Your task to perform on an android device: install app "ColorNote Notepad Notes" Image 0: 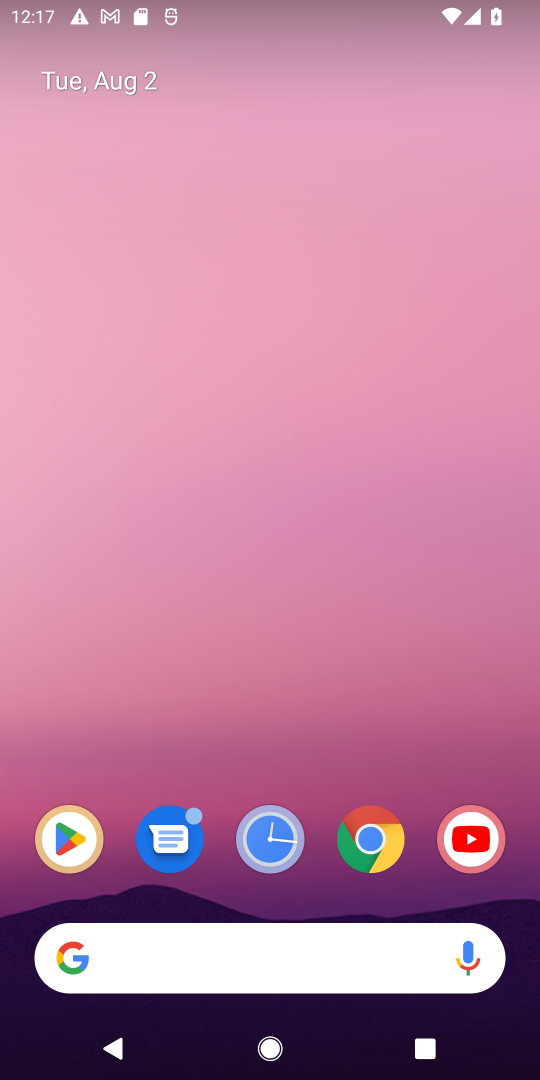
Step 0: drag from (312, 744) to (245, 354)
Your task to perform on an android device: install app "ColorNote Notepad Notes" Image 1: 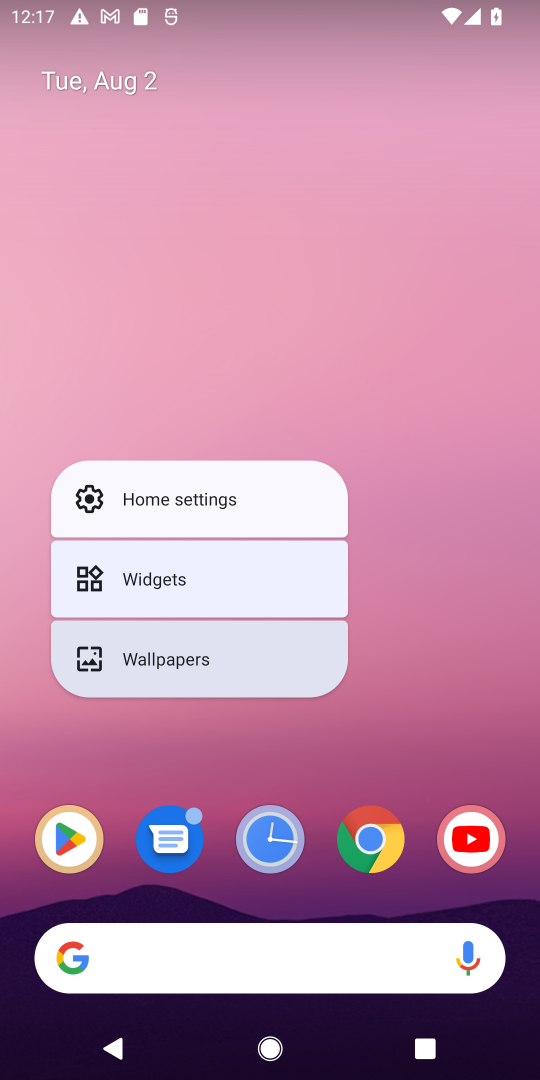
Step 1: click (489, 715)
Your task to perform on an android device: install app "ColorNote Notepad Notes" Image 2: 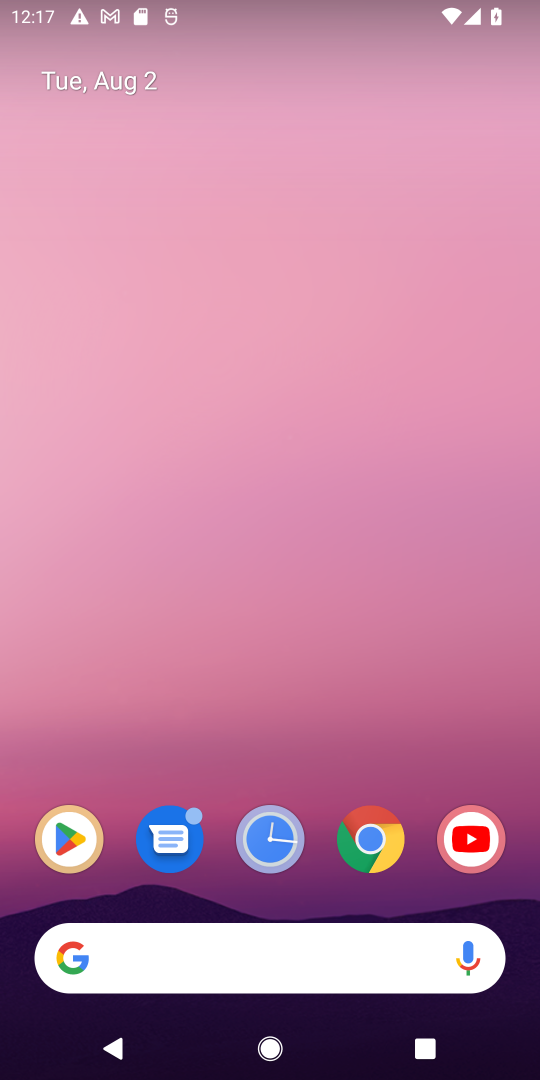
Step 2: drag from (437, 736) to (240, 110)
Your task to perform on an android device: install app "ColorNote Notepad Notes" Image 3: 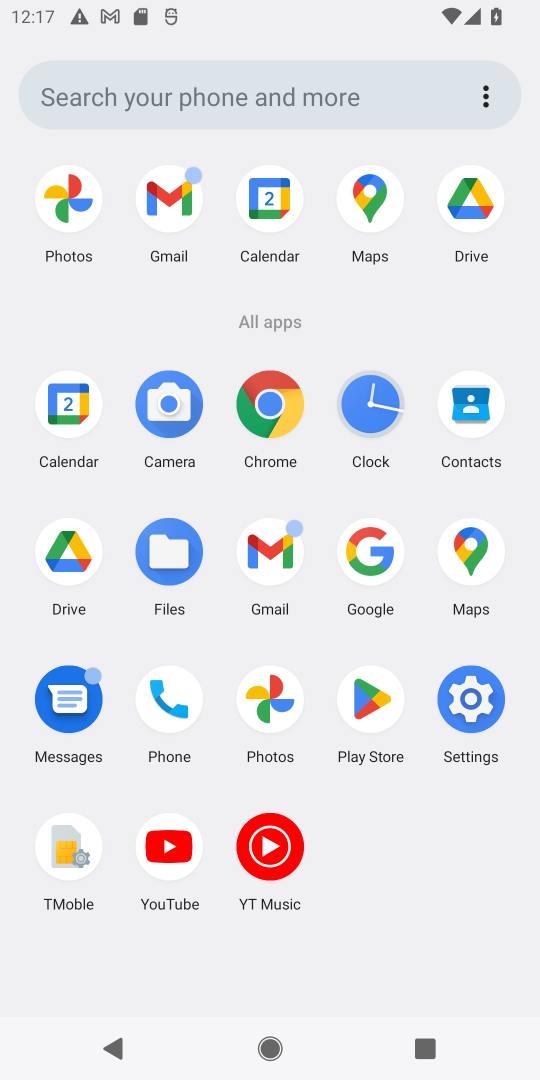
Step 3: click (350, 697)
Your task to perform on an android device: install app "ColorNote Notepad Notes" Image 4: 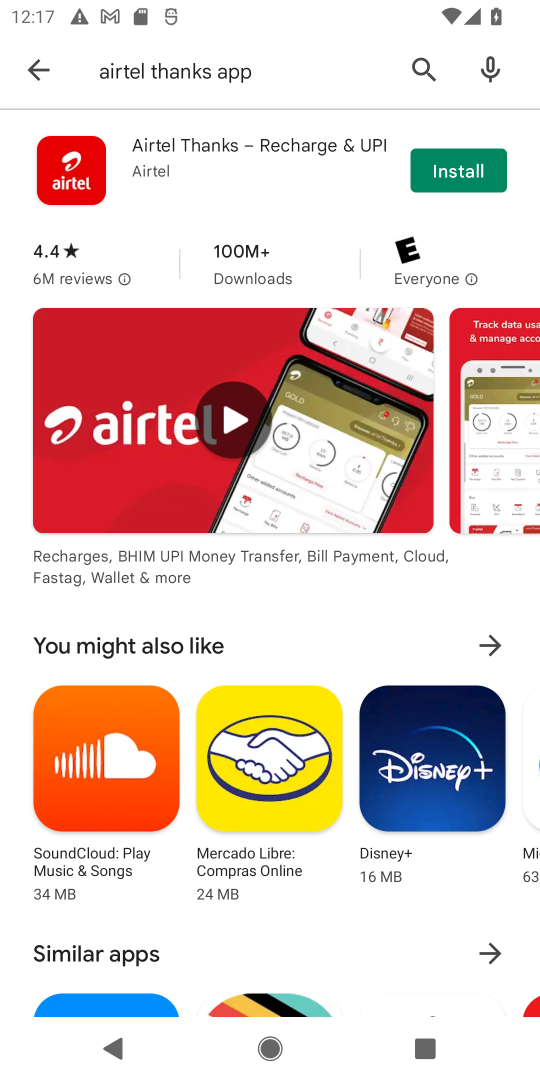
Step 4: click (422, 67)
Your task to perform on an android device: install app "ColorNote Notepad Notes" Image 5: 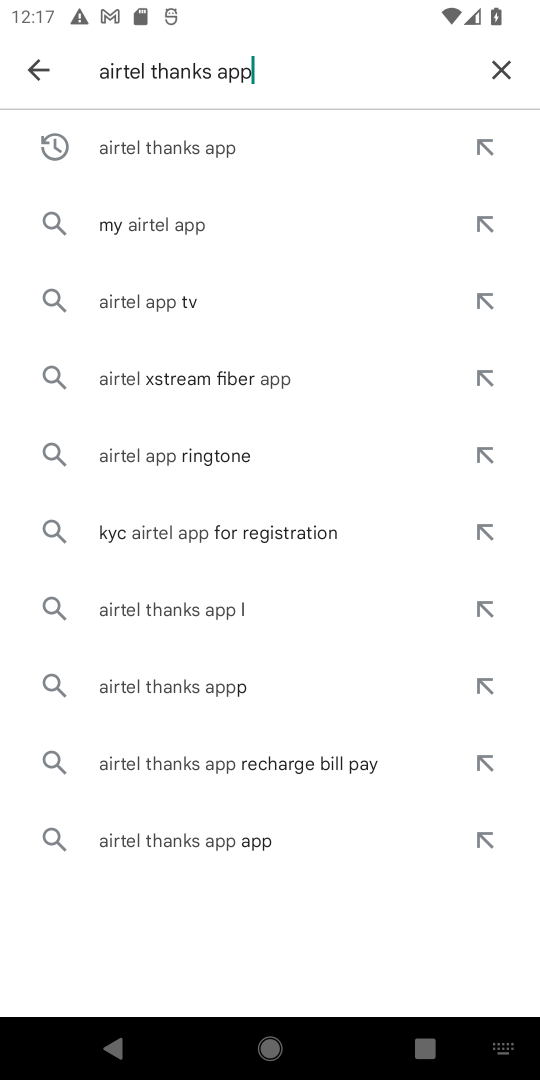
Step 5: click (501, 71)
Your task to perform on an android device: install app "ColorNote Notepad Notes" Image 6: 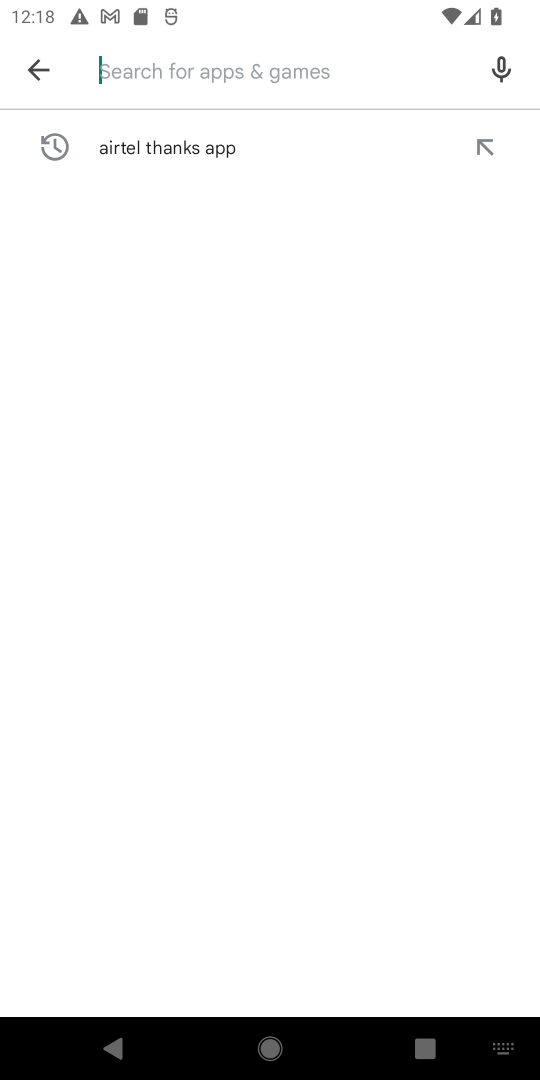
Step 6: type "colornote notepad notes"
Your task to perform on an android device: install app "ColorNote Notepad Notes" Image 7: 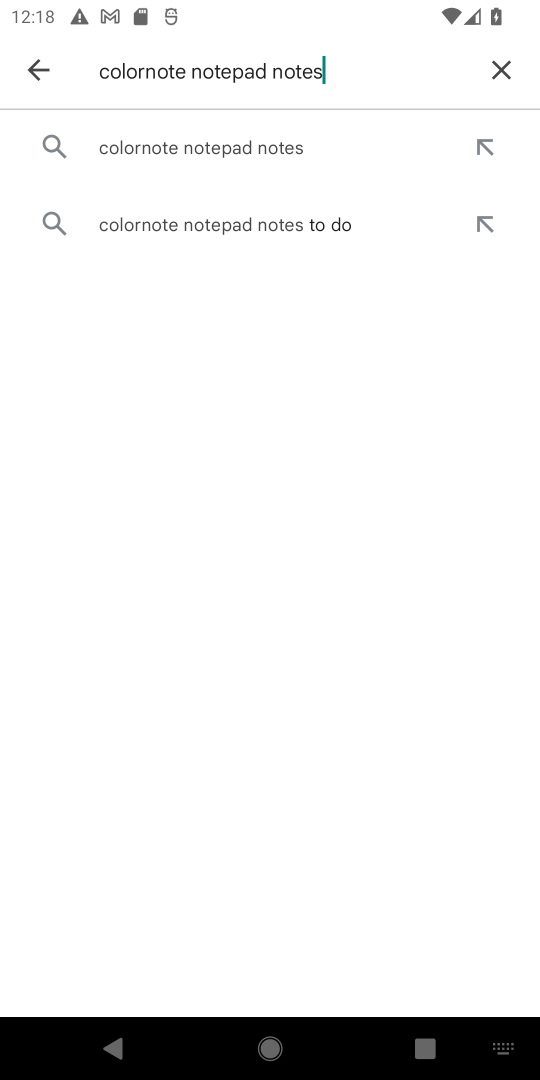
Step 7: click (258, 132)
Your task to perform on an android device: install app "ColorNote Notepad Notes" Image 8: 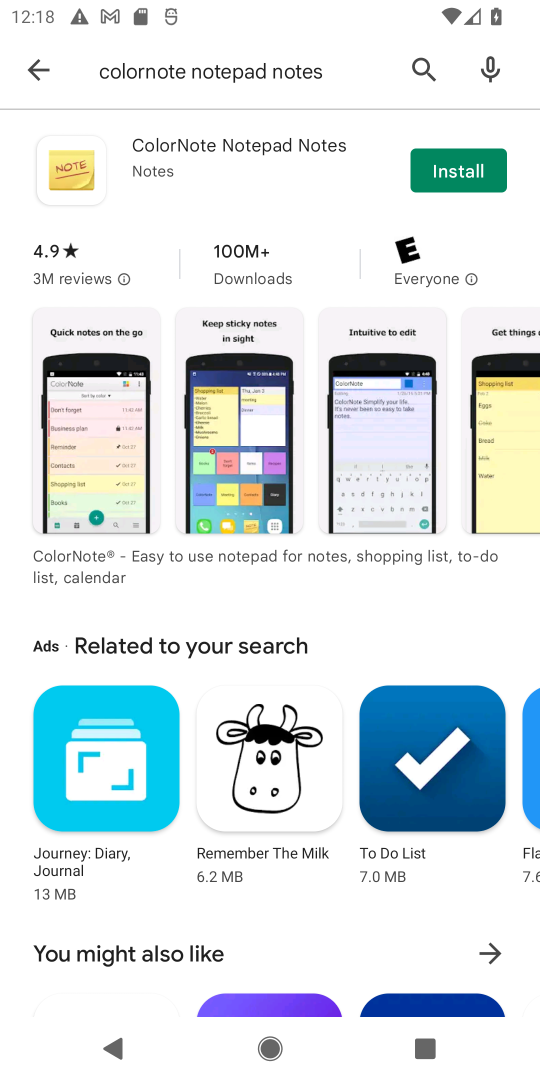
Step 8: click (437, 160)
Your task to perform on an android device: install app "ColorNote Notepad Notes" Image 9: 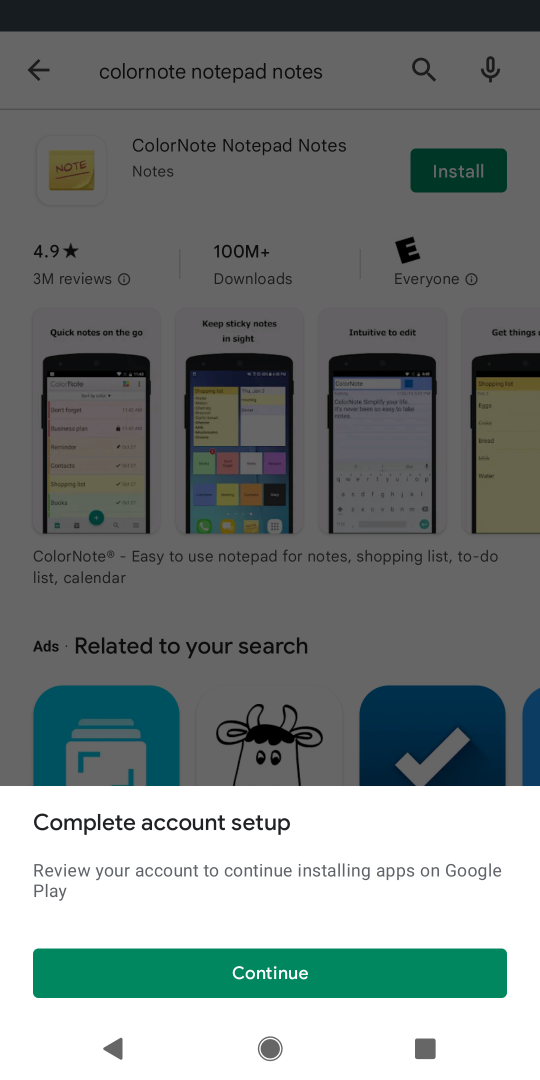
Step 9: click (138, 962)
Your task to perform on an android device: install app "ColorNote Notepad Notes" Image 10: 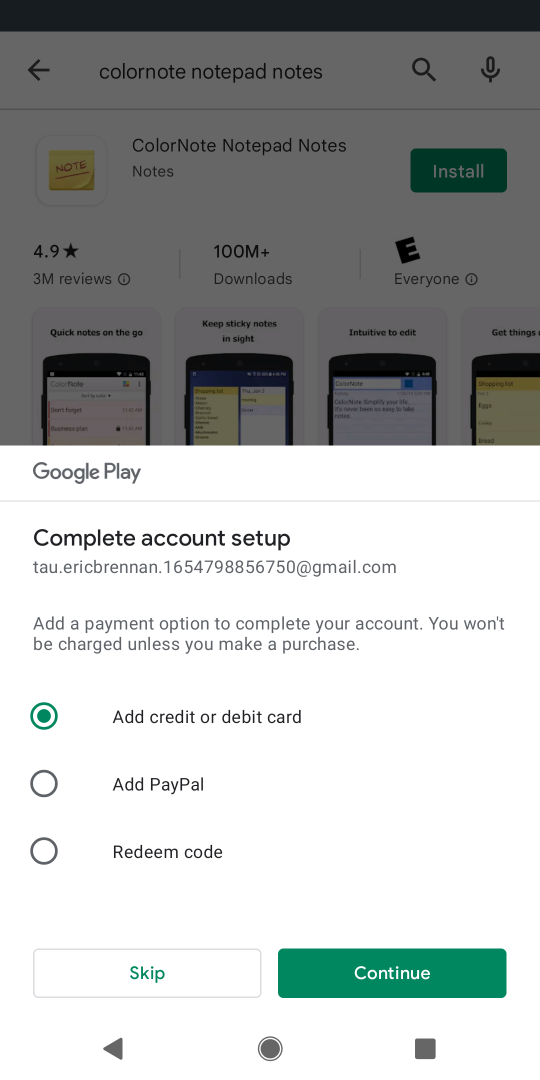
Step 10: click (115, 977)
Your task to perform on an android device: install app "ColorNote Notepad Notes" Image 11: 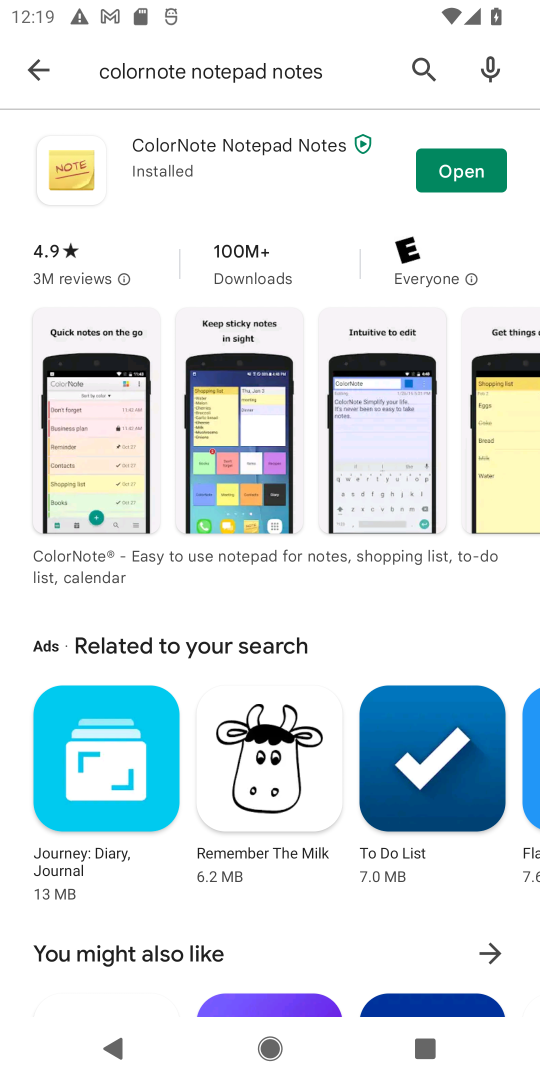
Step 11: task complete